Your task to perform on an android device: Search for pizza restaurants on Maps Image 0: 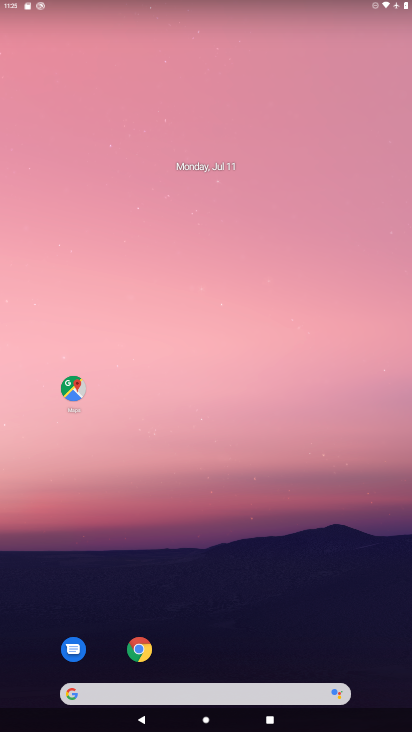
Step 0: drag from (347, 588) to (274, 75)
Your task to perform on an android device: Search for pizza restaurants on Maps Image 1: 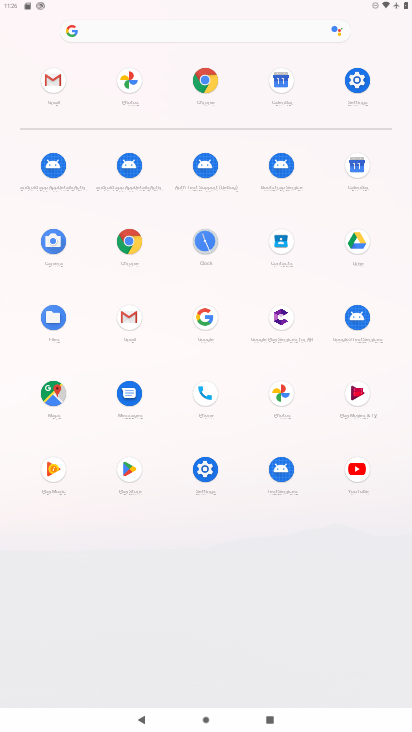
Step 1: click (55, 385)
Your task to perform on an android device: Search for pizza restaurants on Maps Image 2: 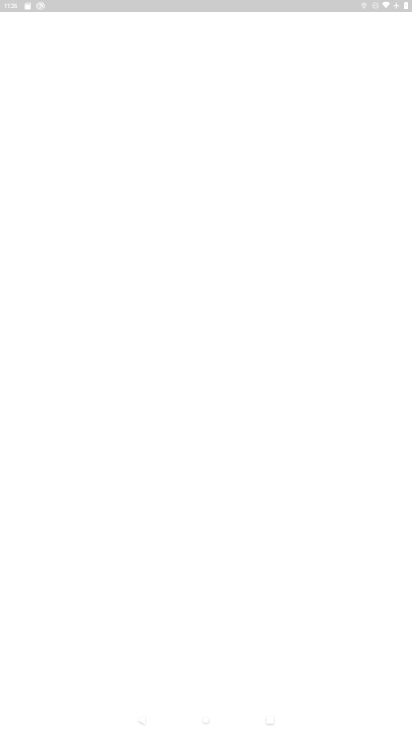
Step 2: task complete